Your task to perform on an android device: turn off location Image 0: 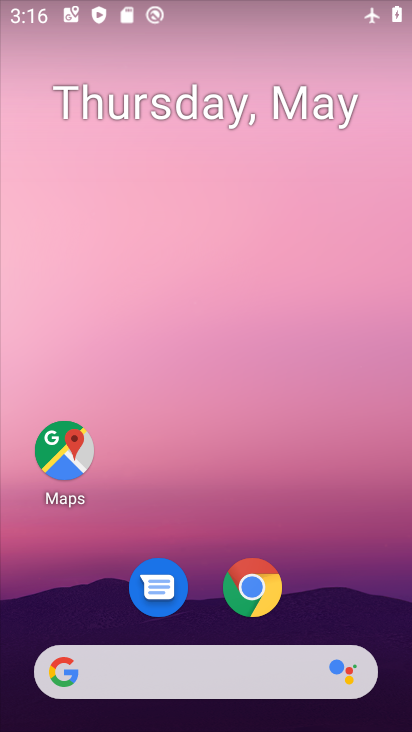
Step 0: drag from (186, 597) to (267, 146)
Your task to perform on an android device: turn off location Image 1: 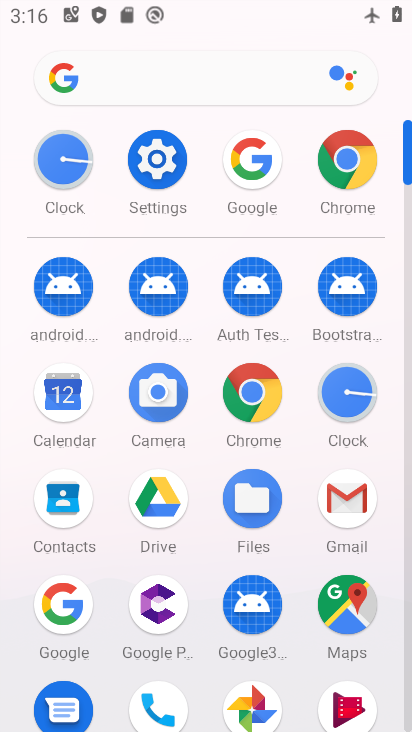
Step 1: click (157, 189)
Your task to perform on an android device: turn off location Image 2: 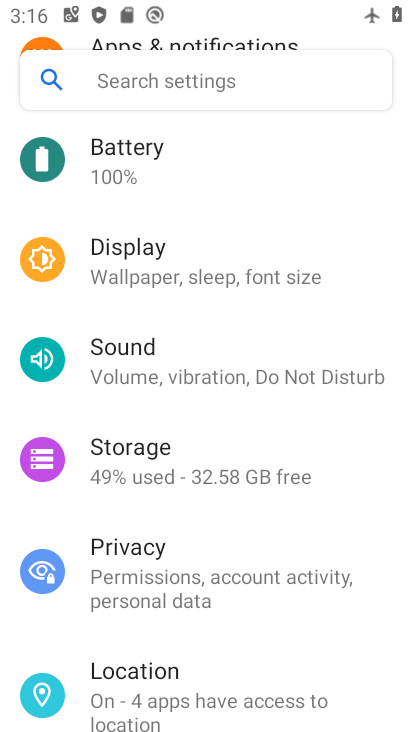
Step 2: drag from (222, 277) to (197, 528)
Your task to perform on an android device: turn off location Image 3: 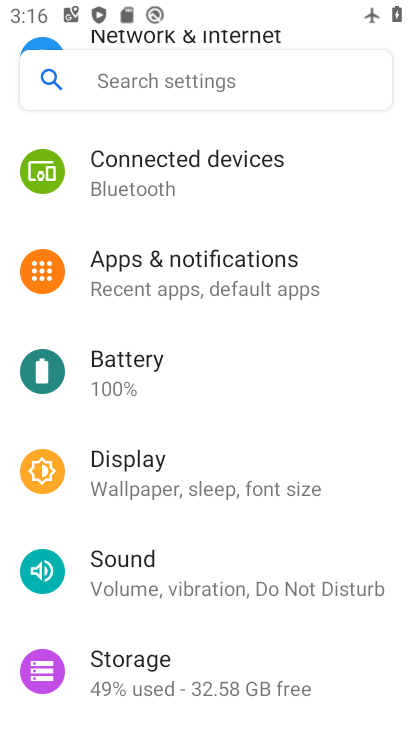
Step 3: drag from (256, 352) to (215, 625)
Your task to perform on an android device: turn off location Image 4: 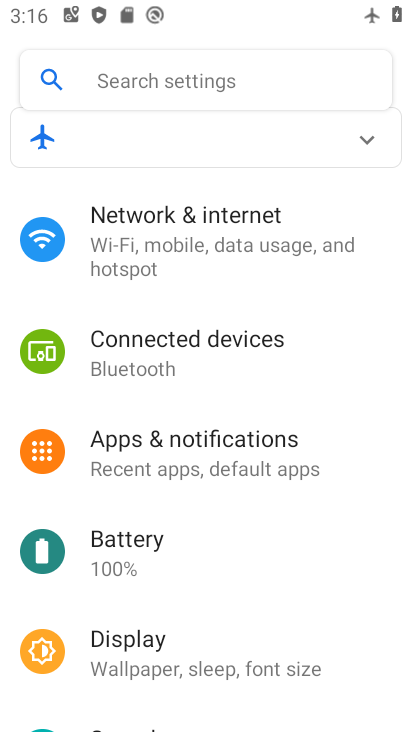
Step 4: drag from (235, 471) to (325, 164)
Your task to perform on an android device: turn off location Image 5: 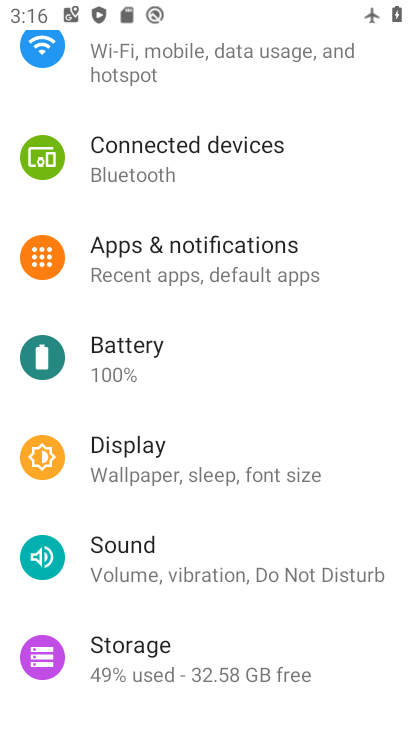
Step 5: drag from (236, 468) to (323, 100)
Your task to perform on an android device: turn off location Image 6: 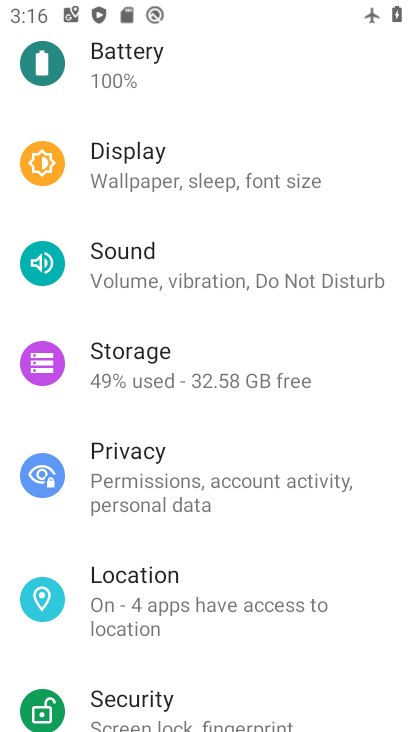
Step 6: click (212, 603)
Your task to perform on an android device: turn off location Image 7: 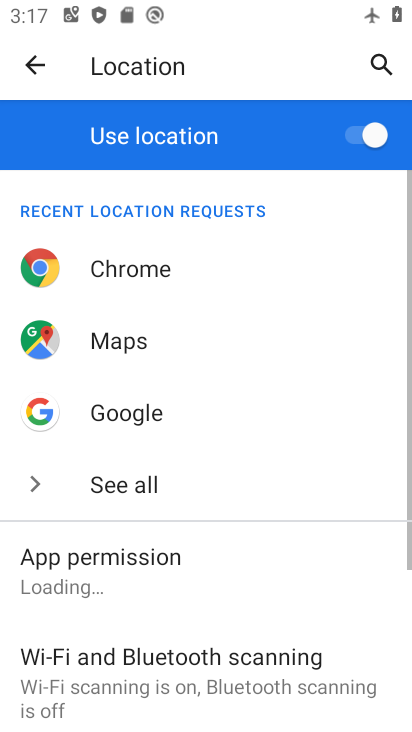
Step 7: click (348, 126)
Your task to perform on an android device: turn off location Image 8: 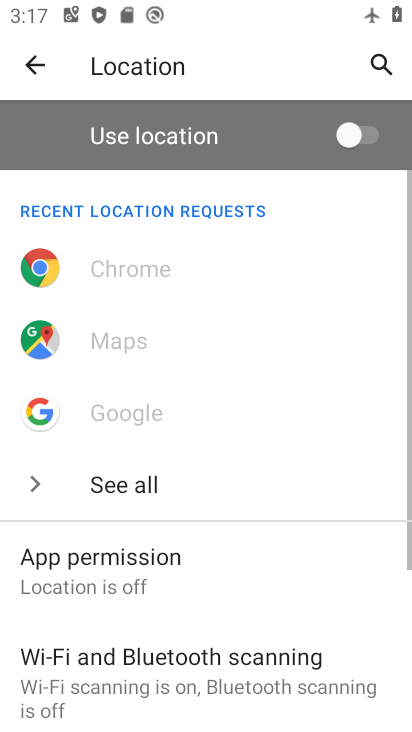
Step 8: task complete